Your task to perform on an android device: turn off picture-in-picture Image 0: 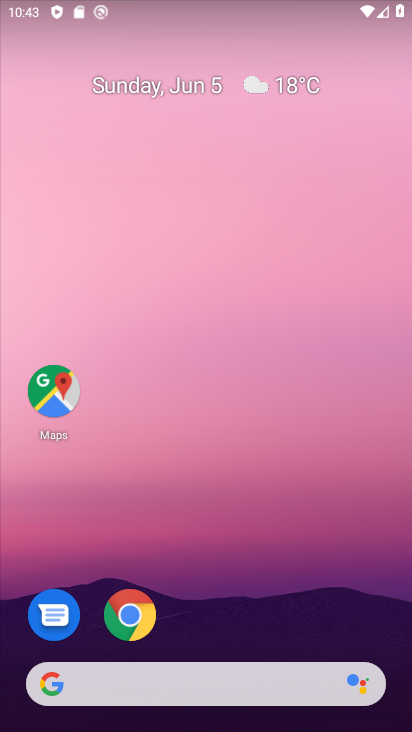
Step 0: click (133, 617)
Your task to perform on an android device: turn off picture-in-picture Image 1: 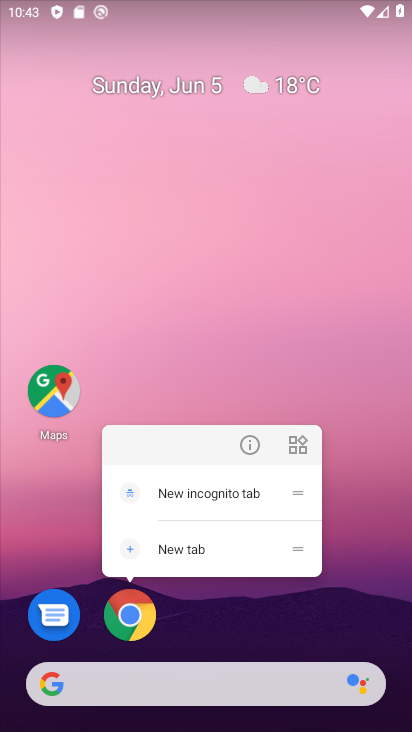
Step 1: click (249, 444)
Your task to perform on an android device: turn off picture-in-picture Image 2: 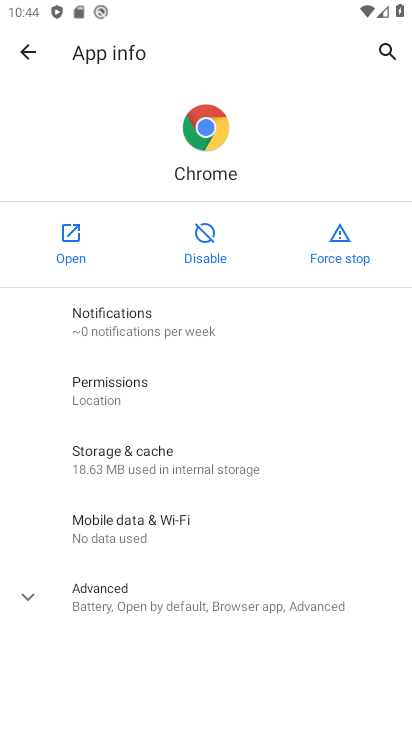
Step 2: click (140, 598)
Your task to perform on an android device: turn off picture-in-picture Image 3: 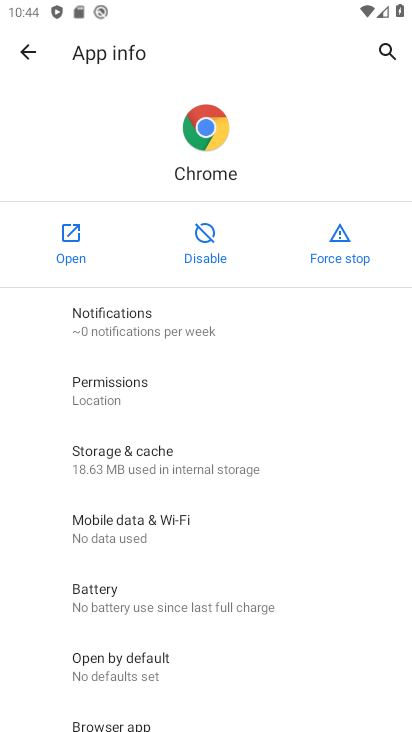
Step 3: drag from (206, 663) to (275, 578)
Your task to perform on an android device: turn off picture-in-picture Image 4: 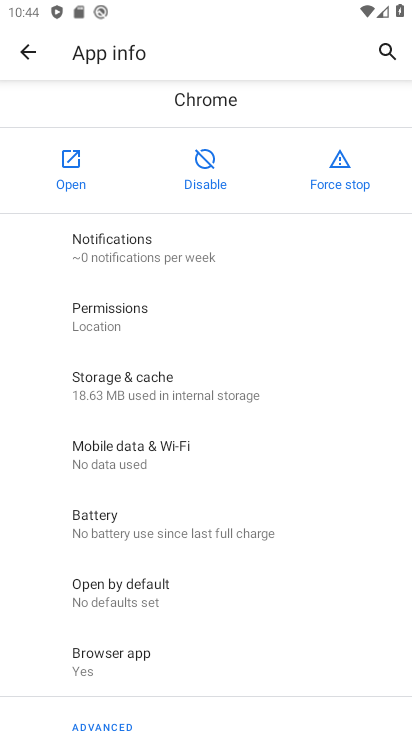
Step 4: drag from (199, 645) to (255, 541)
Your task to perform on an android device: turn off picture-in-picture Image 5: 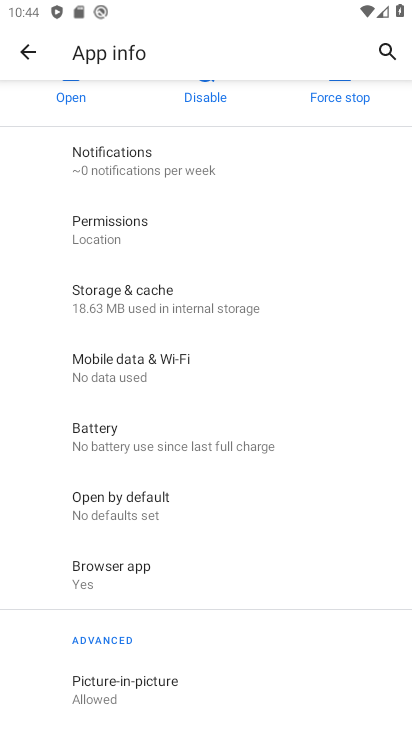
Step 5: click (150, 685)
Your task to perform on an android device: turn off picture-in-picture Image 6: 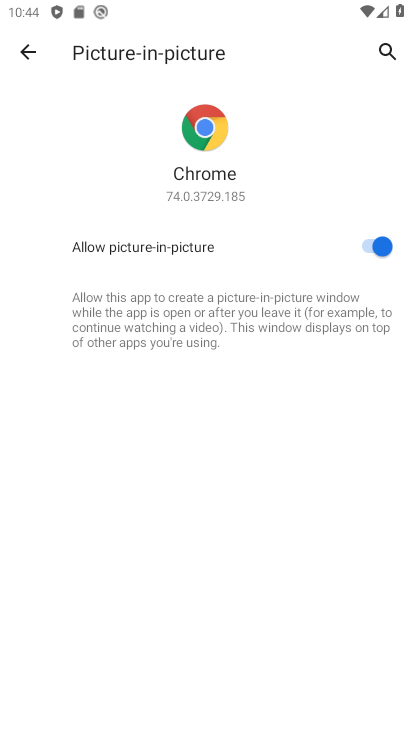
Step 6: click (384, 252)
Your task to perform on an android device: turn off picture-in-picture Image 7: 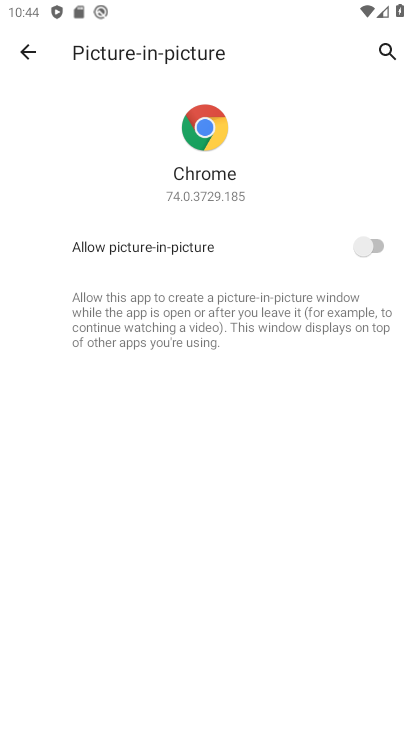
Step 7: task complete